Your task to perform on an android device: toggle javascript in the chrome app Image 0: 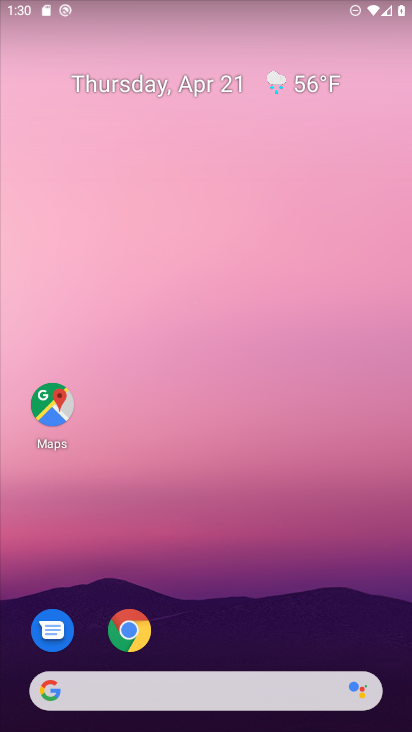
Step 0: click (130, 640)
Your task to perform on an android device: toggle javascript in the chrome app Image 1: 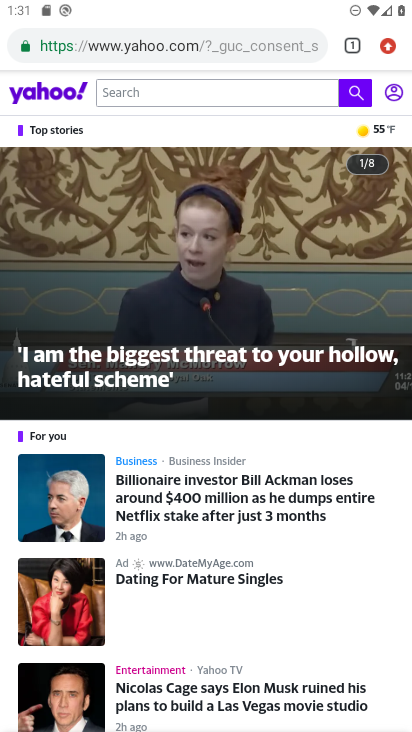
Step 1: drag from (384, 40) to (255, 610)
Your task to perform on an android device: toggle javascript in the chrome app Image 2: 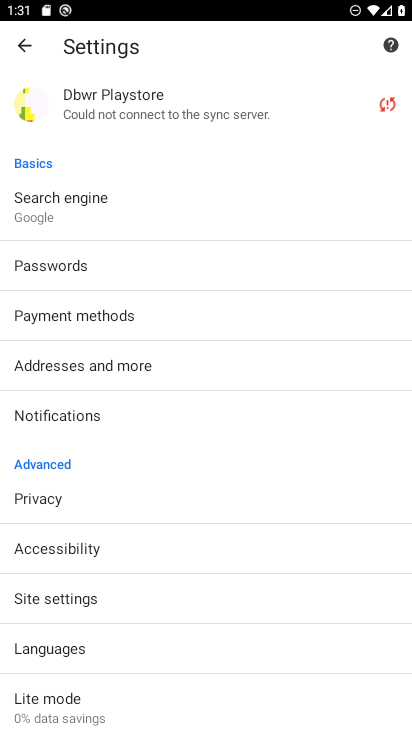
Step 2: click (105, 604)
Your task to perform on an android device: toggle javascript in the chrome app Image 3: 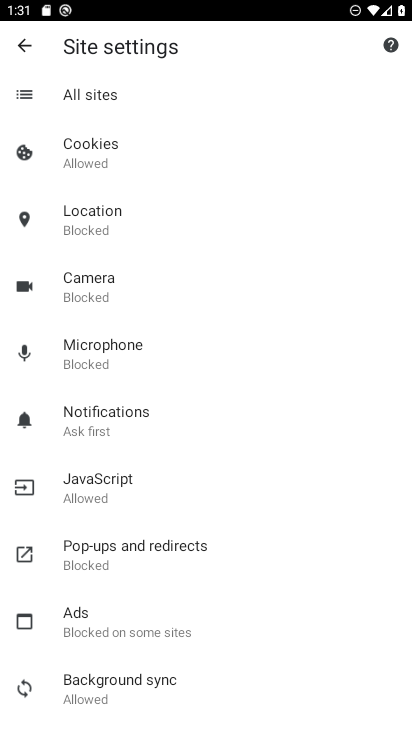
Step 3: click (125, 495)
Your task to perform on an android device: toggle javascript in the chrome app Image 4: 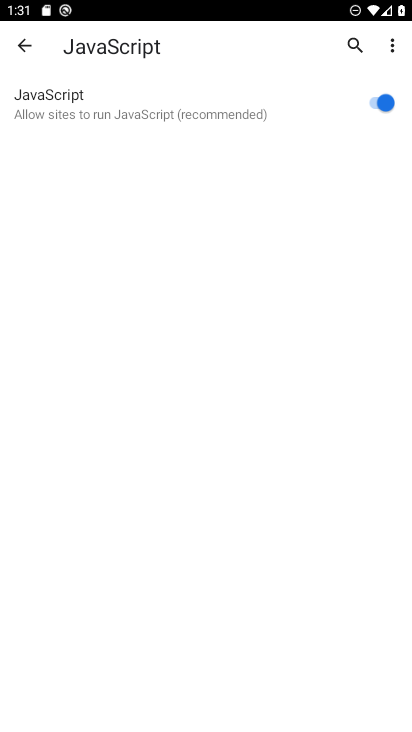
Step 4: click (381, 108)
Your task to perform on an android device: toggle javascript in the chrome app Image 5: 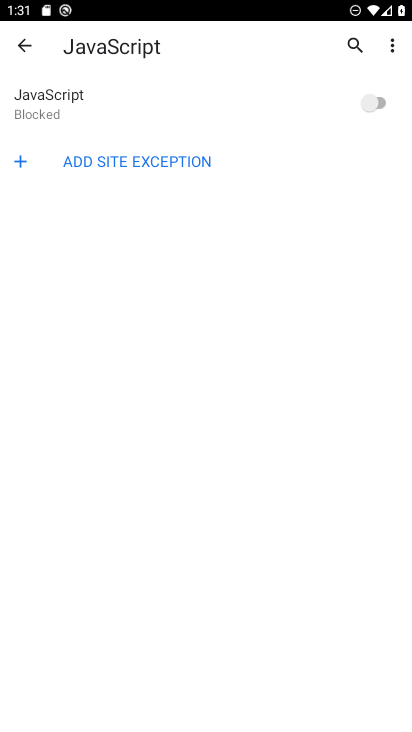
Step 5: task complete